Your task to perform on an android device: turn on bluetooth scan Image 0: 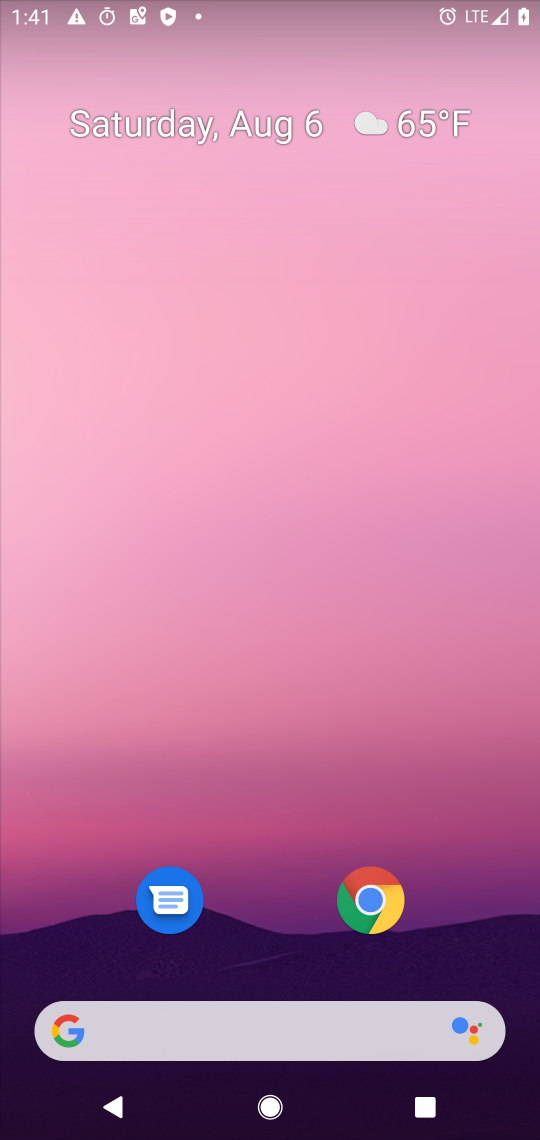
Step 0: drag from (286, 970) to (289, 72)
Your task to perform on an android device: turn on bluetooth scan Image 1: 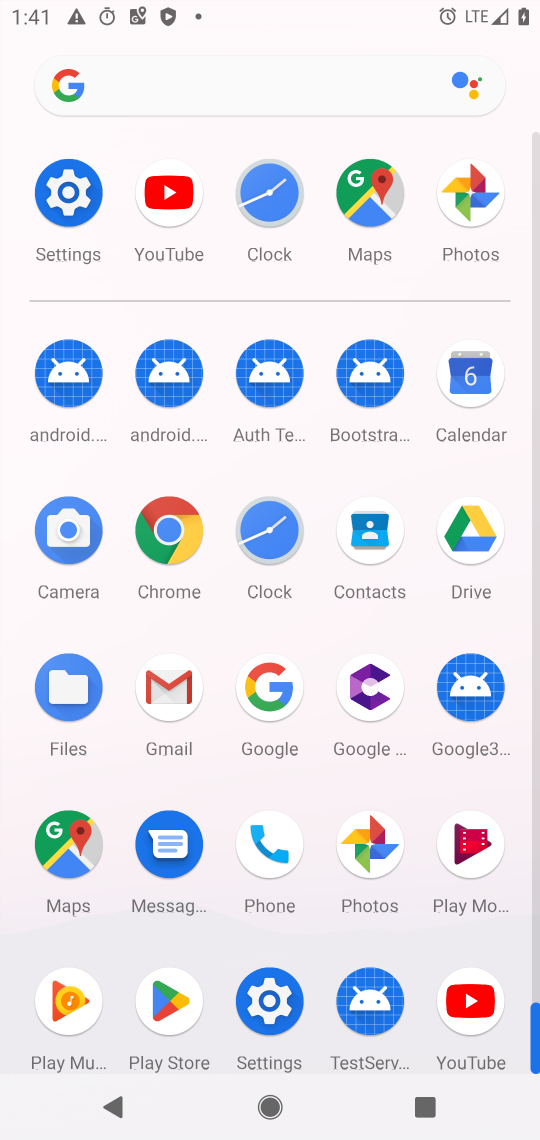
Step 1: click (70, 186)
Your task to perform on an android device: turn on bluetooth scan Image 2: 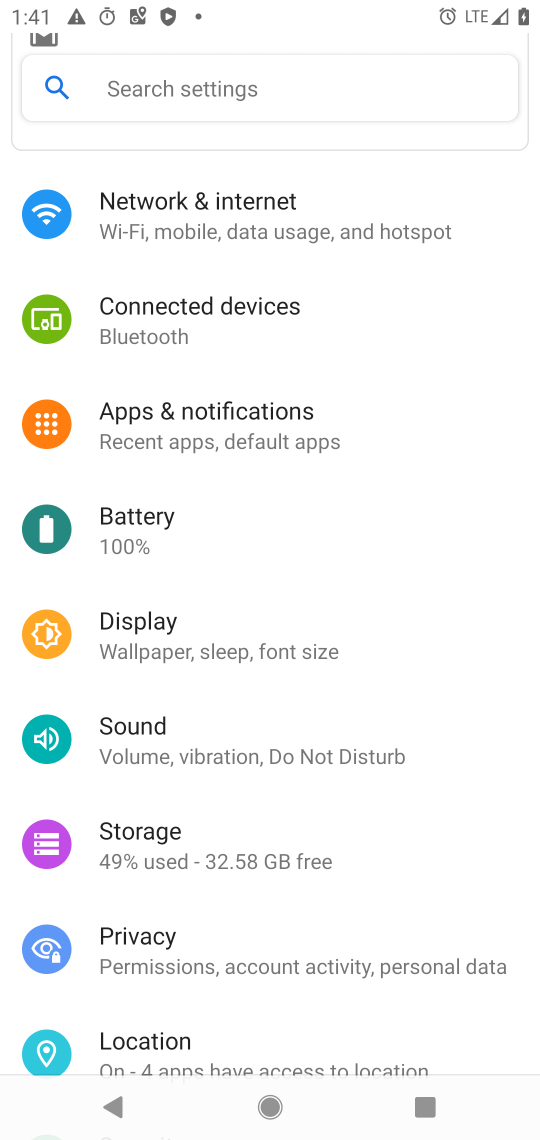
Step 2: click (158, 1051)
Your task to perform on an android device: turn on bluetooth scan Image 3: 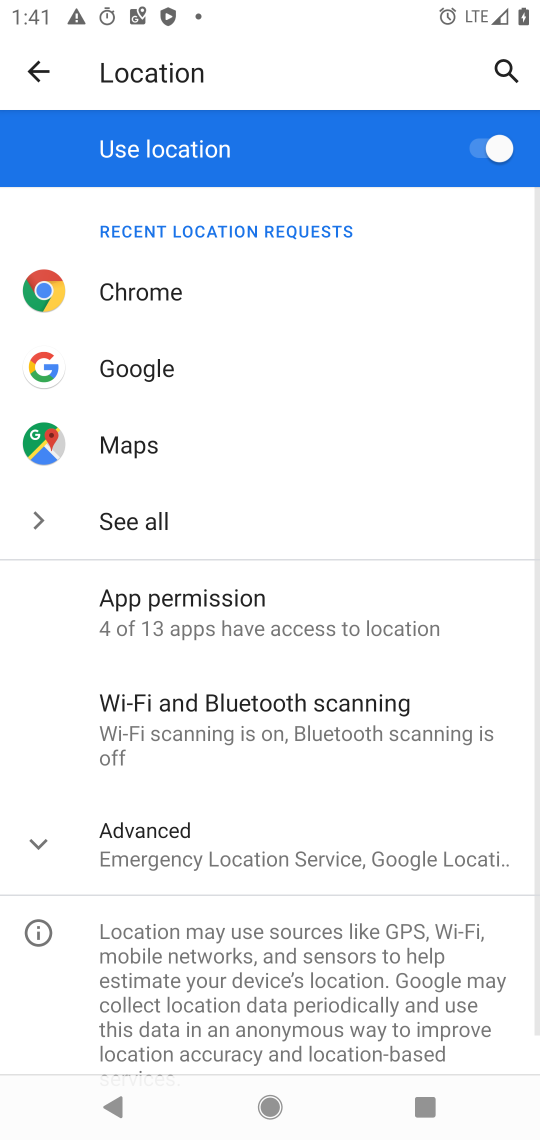
Step 3: click (192, 723)
Your task to perform on an android device: turn on bluetooth scan Image 4: 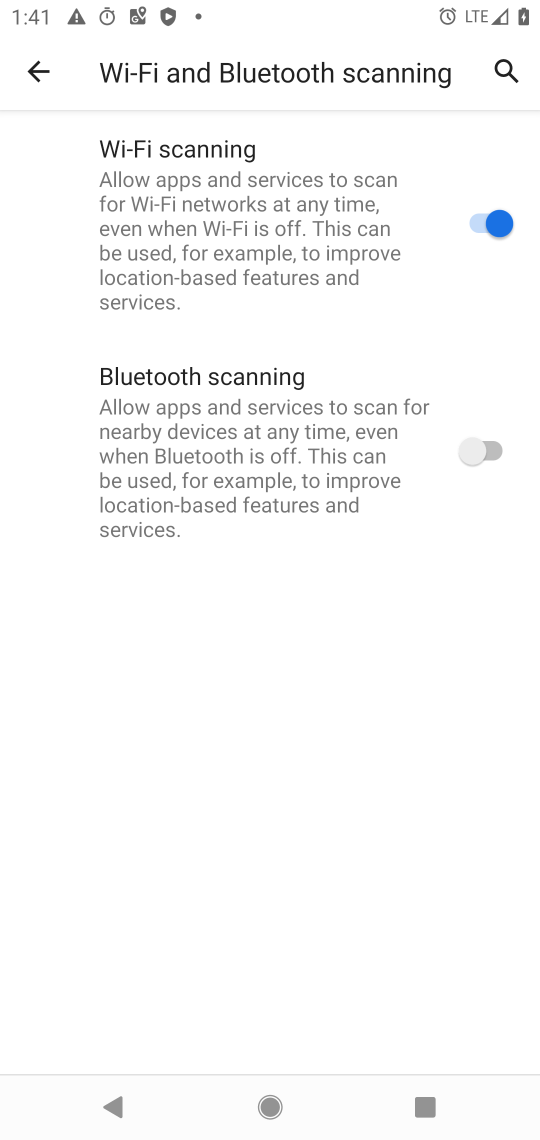
Step 4: click (481, 445)
Your task to perform on an android device: turn on bluetooth scan Image 5: 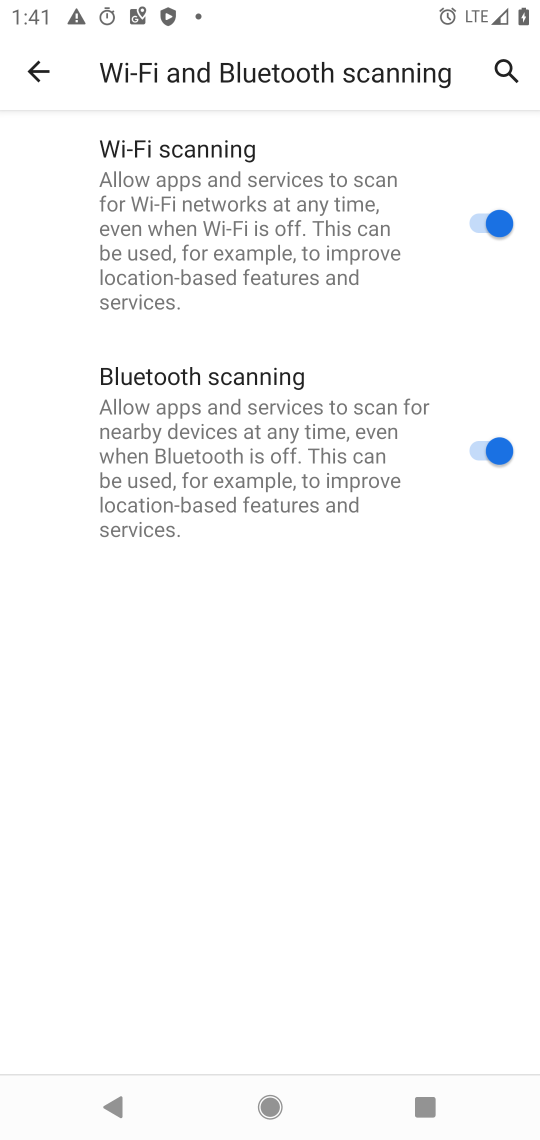
Step 5: task complete